Your task to perform on an android device: Open ESPN.com Image 0: 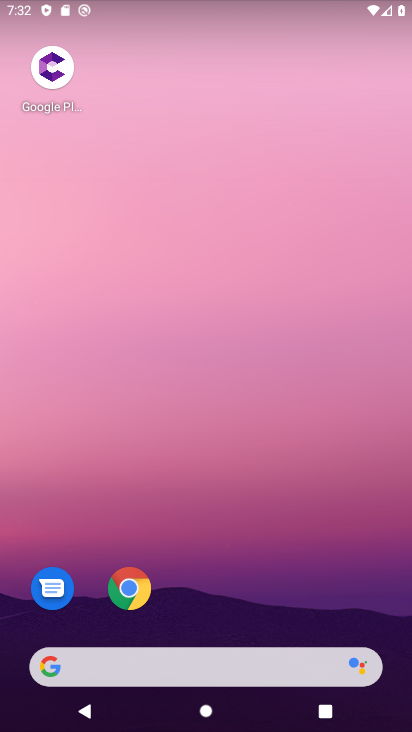
Step 0: click (218, 663)
Your task to perform on an android device: Open ESPN.com Image 1: 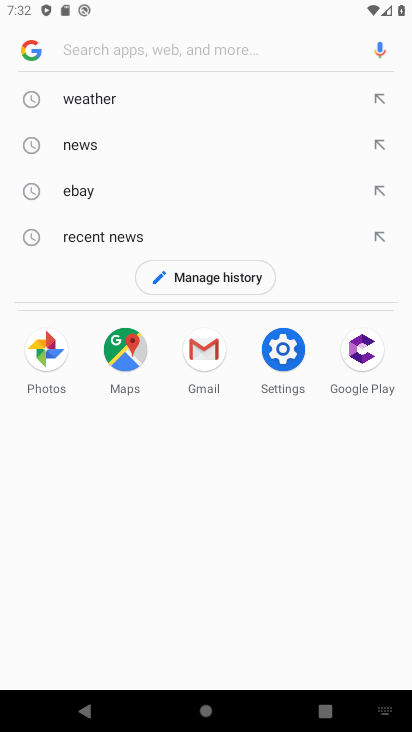
Step 1: type "espn.com"
Your task to perform on an android device: Open ESPN.com Image 2: 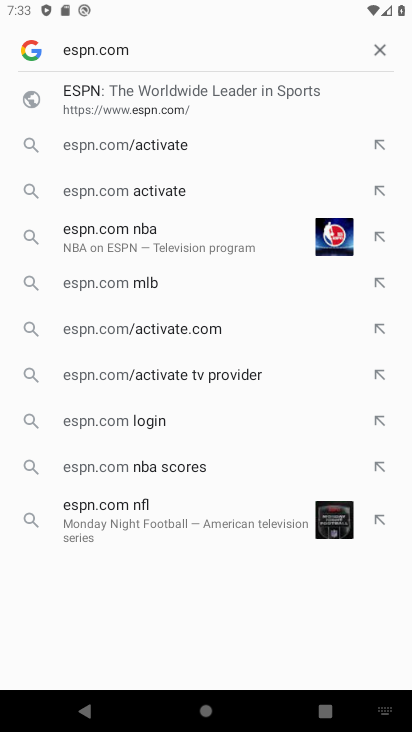
Step 2: click (212, 92)
Your task to perform on an android device: Open ESPN.com Image 3: 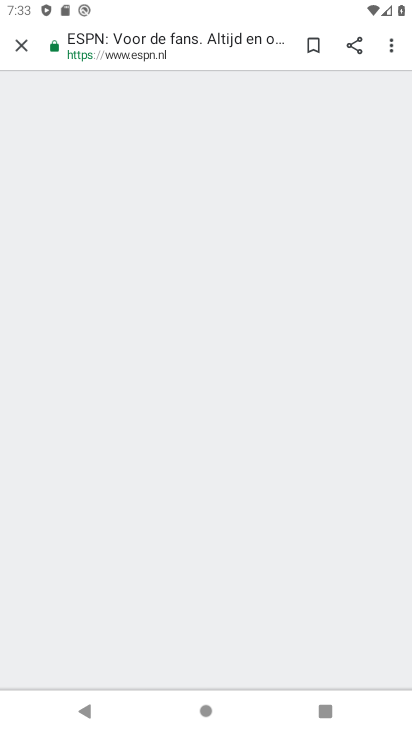
Step 3: task complete